Your task to perform on an android device: Is it going to rain tomorrow? Image 0: 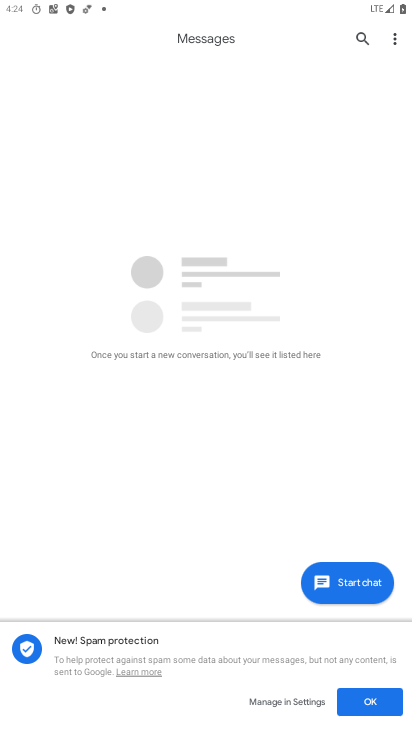
Step 0: click (130, 635)
Your task to perform on an android device: Is it going to rain tomorrow? Image 1: 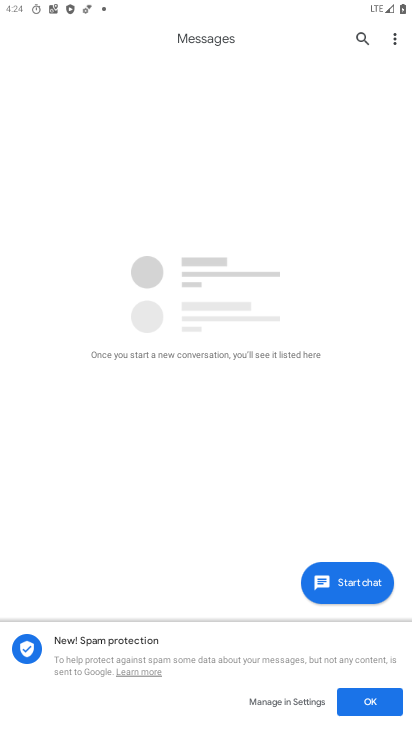
Step 1: press home button
Your task to perform on an android device: Is it going to rain tomorrow? Image 2: 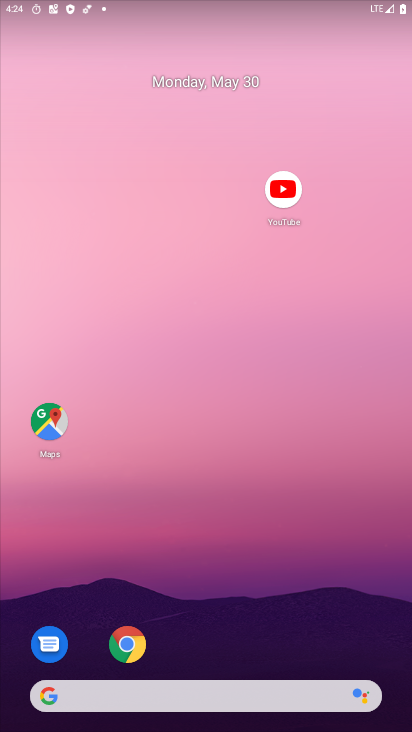
Step 2: click (157, 703)
Your task to perform on an android device: Is it going to rain tomorrow? Image 3: 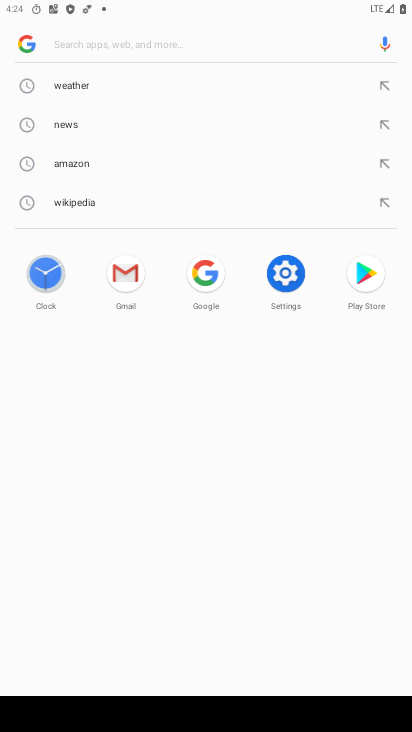
Step 3: click (227, 84)
Your task to perform on an android device: Is it going to rain tomorrow? Image 4: 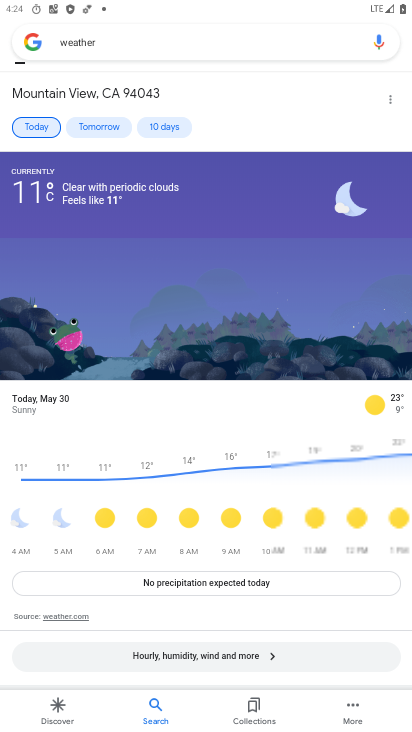
Step 4: click (85, 623)
Your task to perform on an android device: Is it going to rain tomorrow? Image 5: 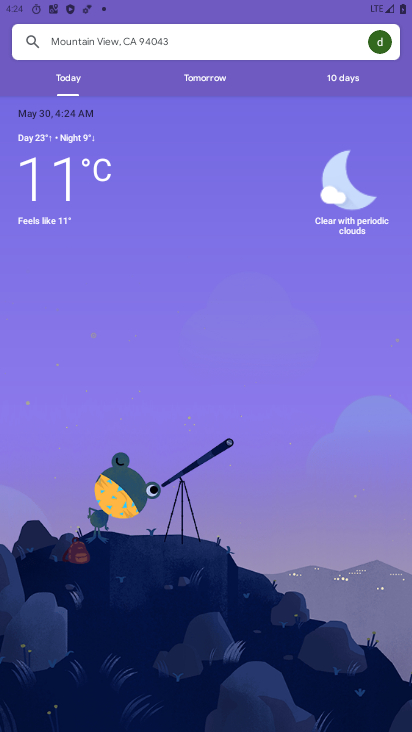
Step 5: click (214, 87)
Your task to perform on an android device: Is it going to rain tomorrow? Image 6: 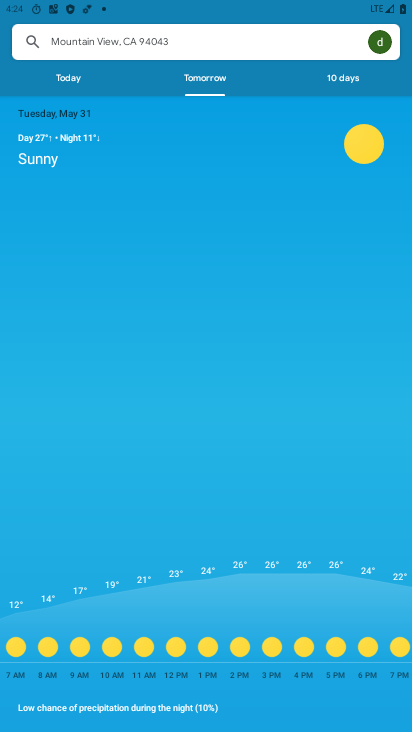
Step 6: task complete